Your task to perform on an android device: manage bookmarks in the chrome app Image 0: 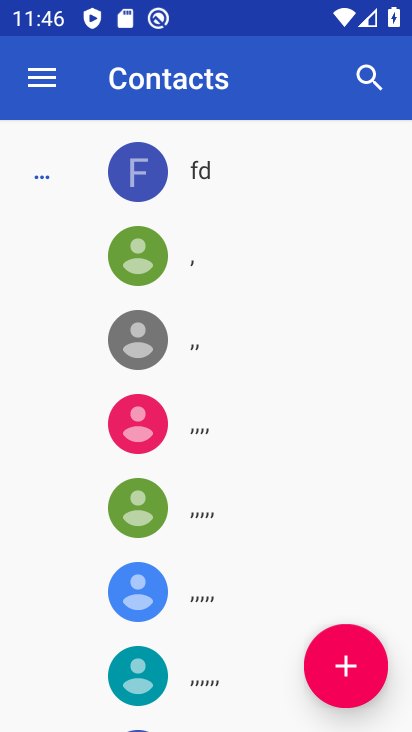
Step 0: press home button
Your task to perform on an android device: manage bookmarks in the chrome app Image 1: 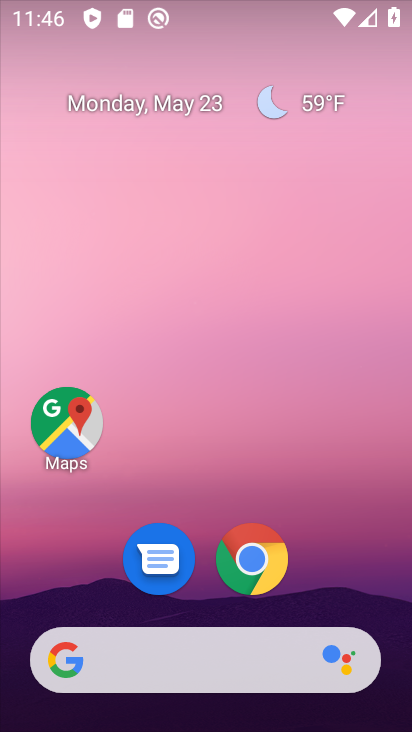
Step 1: click (241, 540)
Your task to perform on an android device: manage bookmarks in the chrome app Image 2: 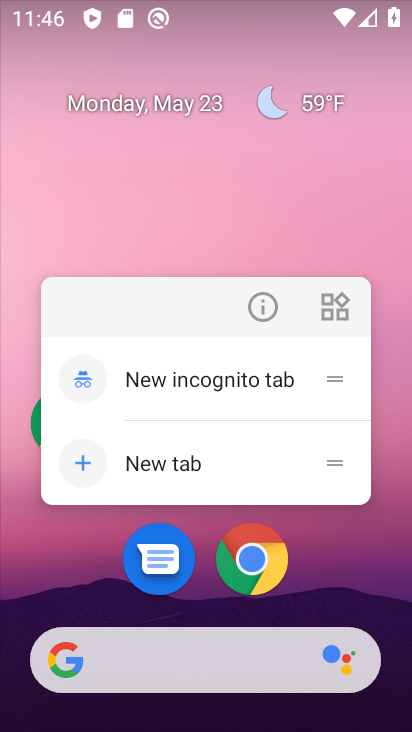
Step 2: click (261, 554)
Your task to perform on an android device: manage bookmarks in the chrome app Image 3: 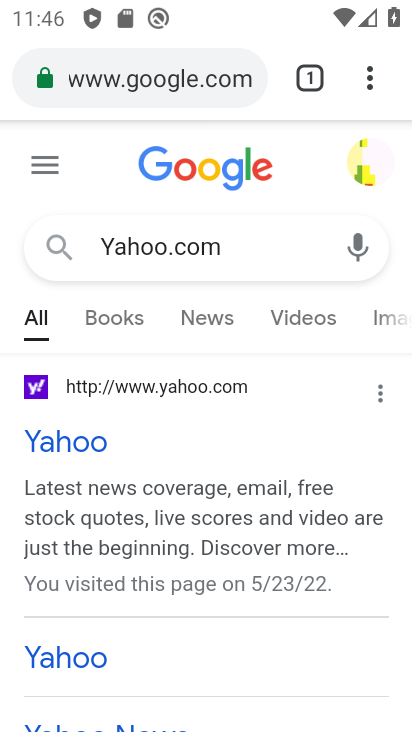
Step 3: click (374, 74)
Your task to perform on an android device: manage bookmarks in the chrome app Image 4: 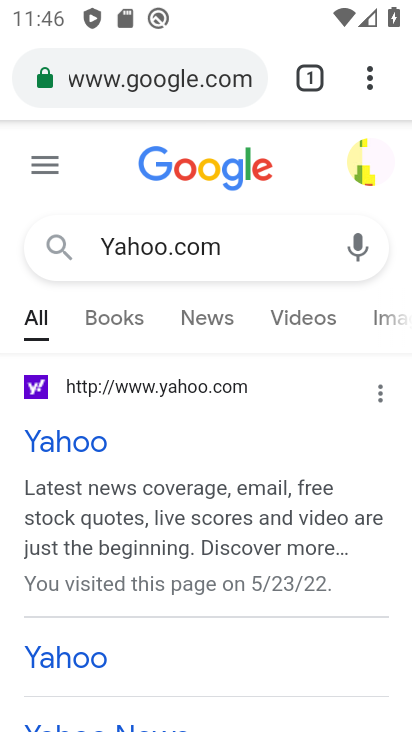
Step 4: click (368, 74)
Your task to perform on an android device: manage bookmarks in the chrome app Image 5: 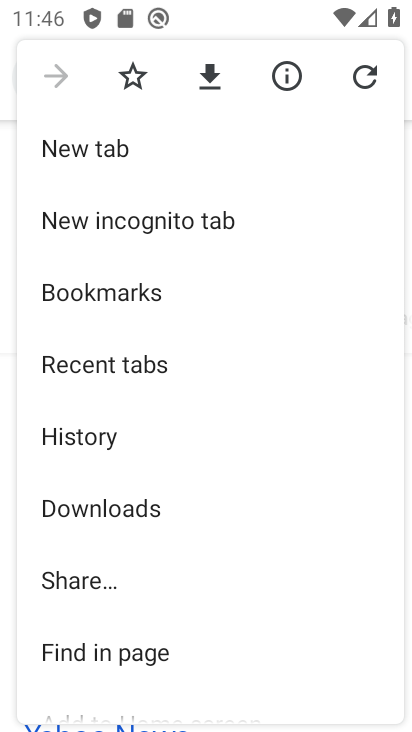
Step 5: click (96, 289)
Your task to perform on an android device: manage bookmarks in the chrome app Image 6: 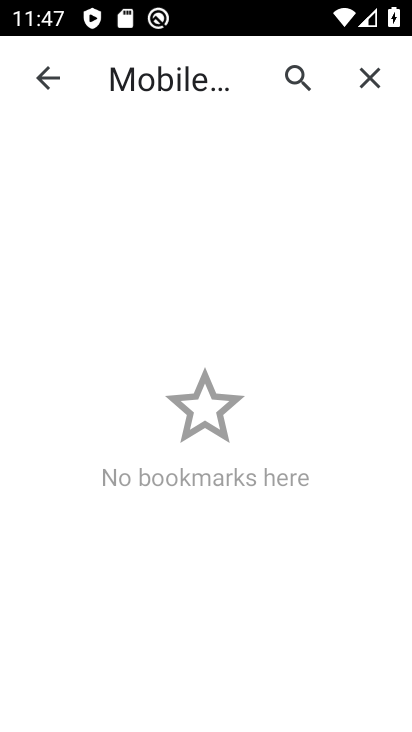
Step 6: task complete